Your task to perform on an android device: Toggle the flashlight Image 0: 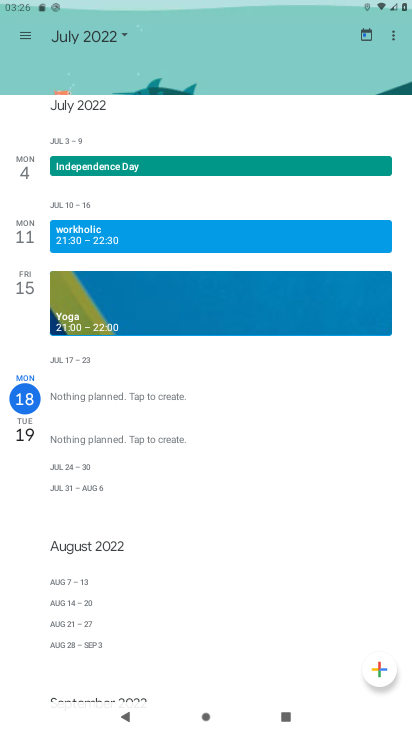
Step 0: press home button
Your task to perform on an android device: Toggle the flashlight Image 1: 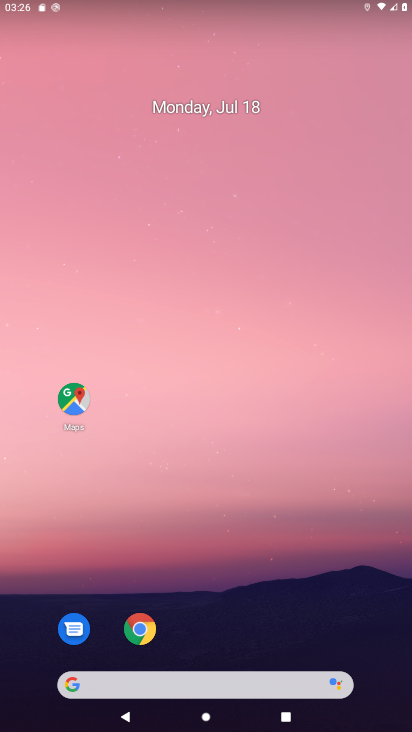
Step 1: drag from (220, 7) to (197, 391)
Your task to perform on an android device: Toggle the flashlight Image 2: 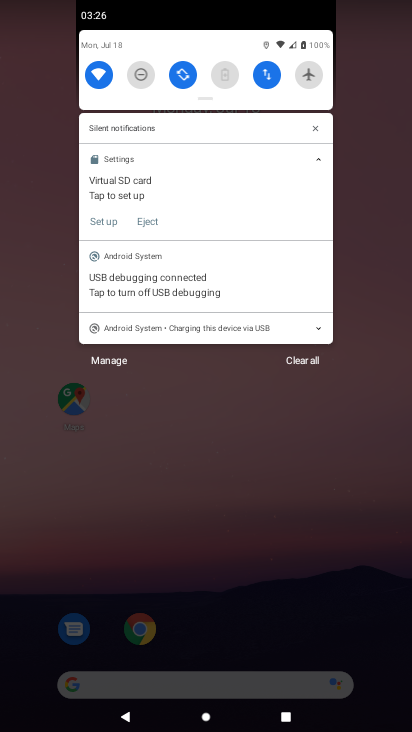
Step 2: drag from (203, 41) to (198, 335)
Your task to perform on an android device: Toggle the flashlight Image 3: 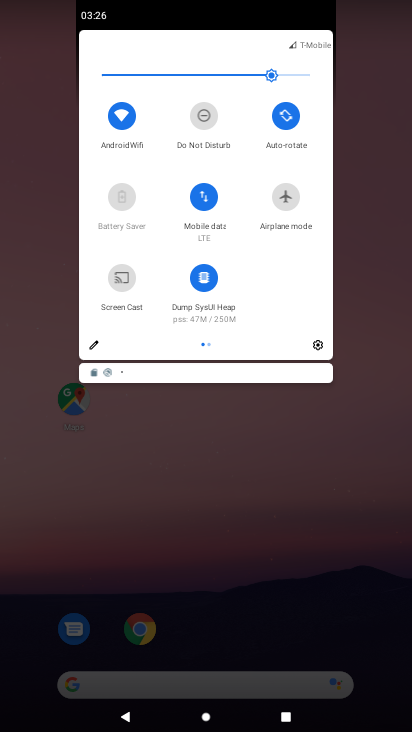
Step 3: click (88, 350)
Your task to perform on an android device: Toggle the flashlight Image 4: 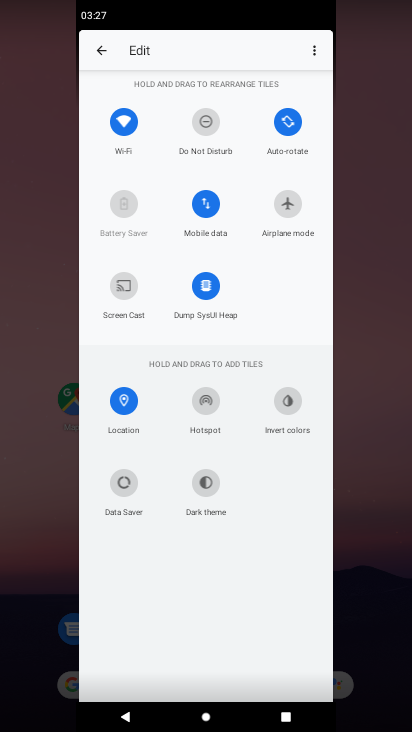
Step 4: task complete